Your task to perform on an android device: open wifi settings Image 0: 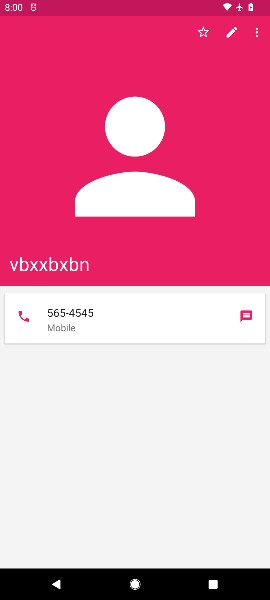
Step 0: press home button
Your task to perform on an android device: open wifi settings Image 1: 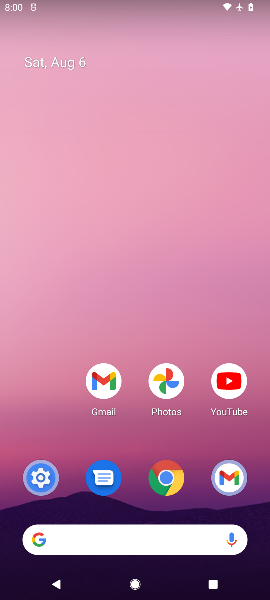
Step 1: click (33, 473)
Your task to perform on an android device: open wifi settings Image 2: 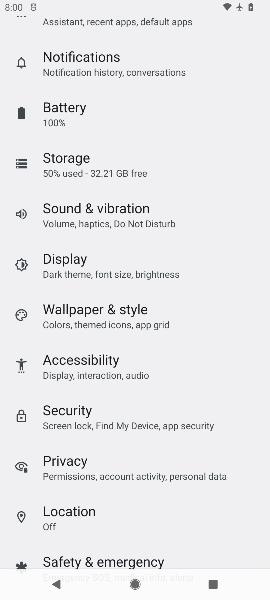
Step 2: drag from (136, 94) to (153, 415)
Your task to perform on an android device: open wifi settings Image 3: 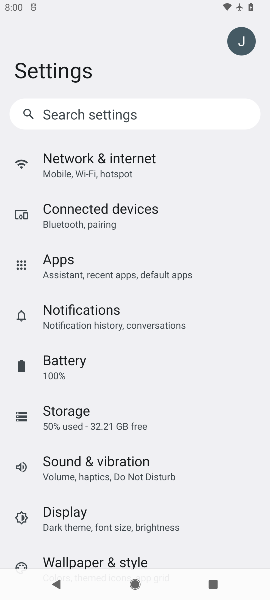
Step 3: click (108, 165)
Your task to perform on an android device: open wifi settings Image 4: 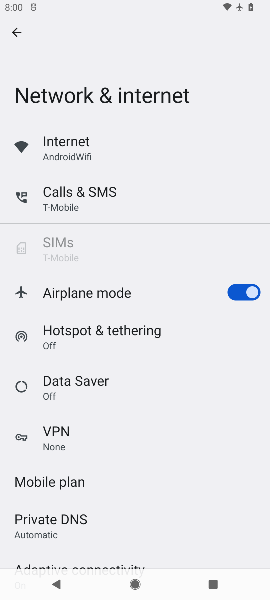
Step 4: click (75, 144)
Your task to perform on an android device: open wifi settings Image 5: 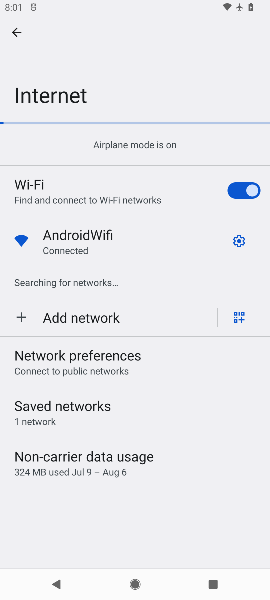
Step 5: task complete